Your task to perform on an android device: toggle sleep mode Image 0: 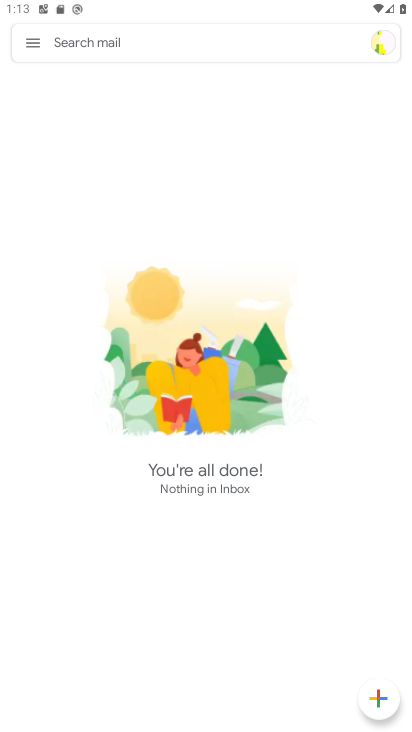
Step 0: press home button
Your task to perform on an android device: toggle sleep mode Image 1: 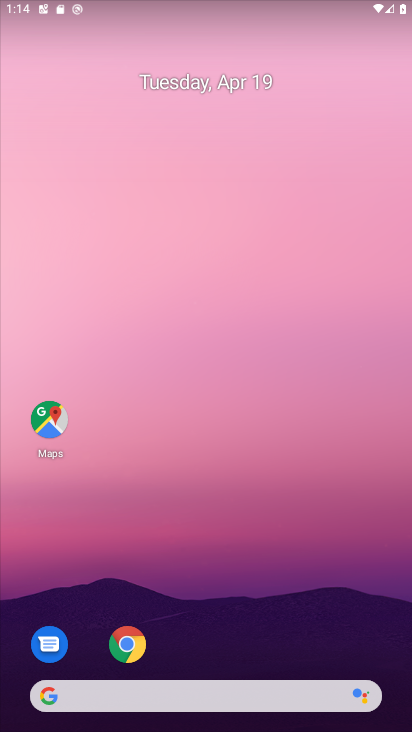
Step 1: drag from (253, 611) to (372, 9)
Your task to perform on an android device: toggle sleep mode Image 2: 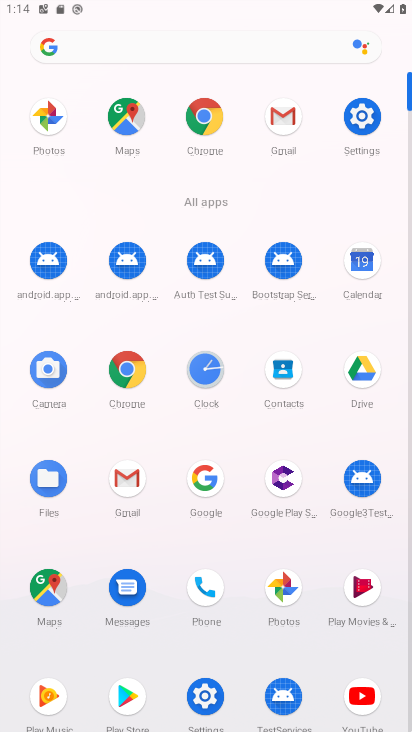
Step 2: click (371, 129)
Your task to perform on an android device: toggle sleep mode Image 3: 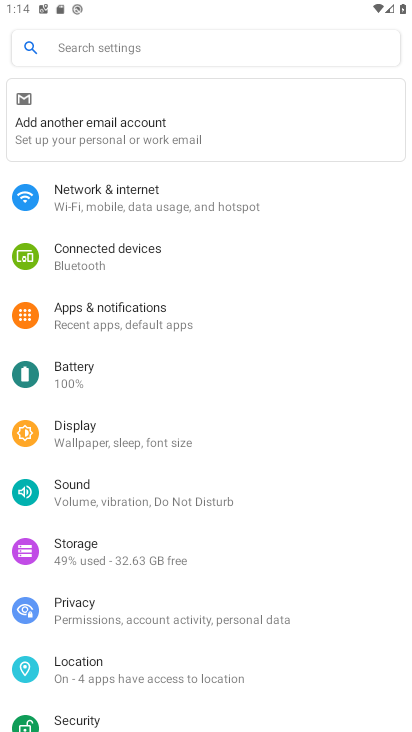
Step 3: click (201, 47)
Your task to perform on an android device: toggle sleep mode Image 4: 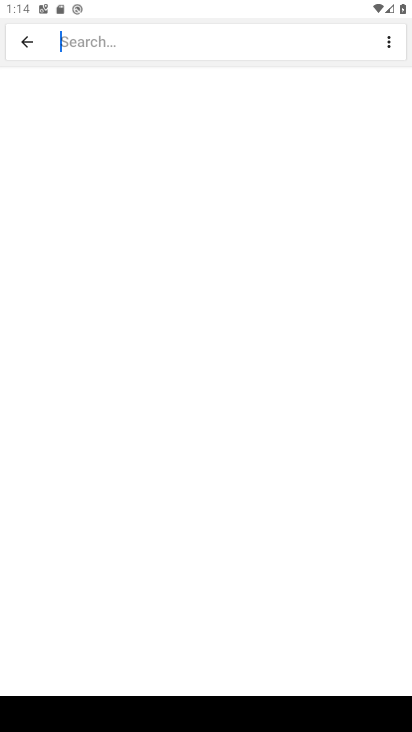
Step 4: type "sleep mode"
Your task to perform on an android device: toggle sleep mode Image 5: 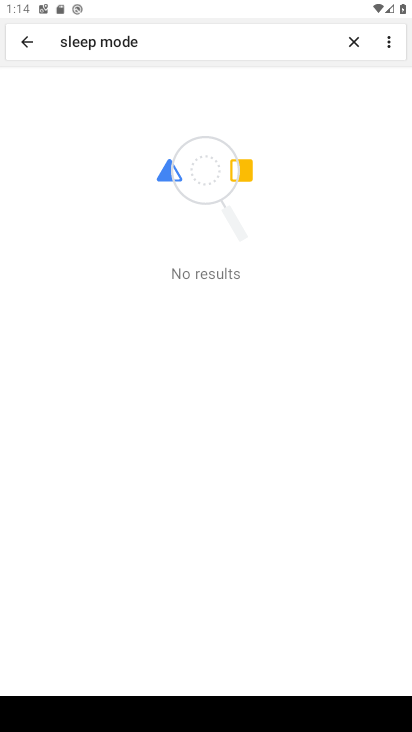
Step 5: task complete